Your task to perform on an android device: Open calendar and show me the first week of next month Image 0: 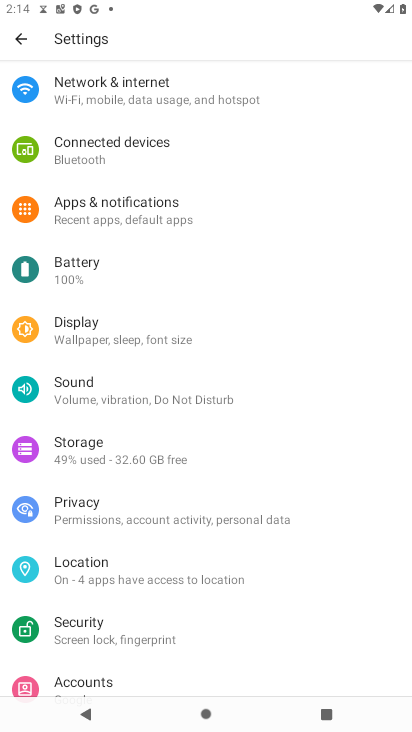
Step 0: press home button
Your task to perform on an android device: Open calendar and show me the first week of next month Image 1: 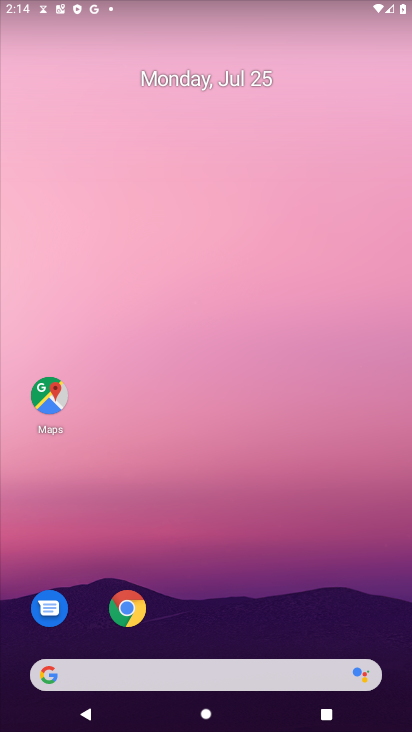
Step 1: drag from (192, 679) to (261, 39)
Your task to perform on an android device: Open calendar and show me the first week of next month Image 2: 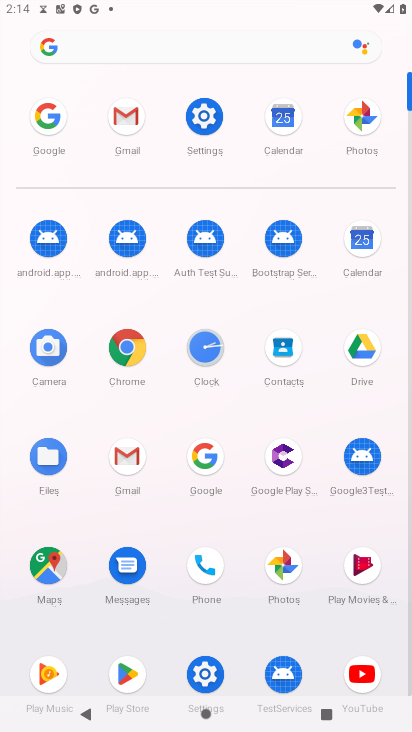
Step 2: click (359, 239)
Your task to perform on an android device: Open calendar and show me the first week of next month Image 3: 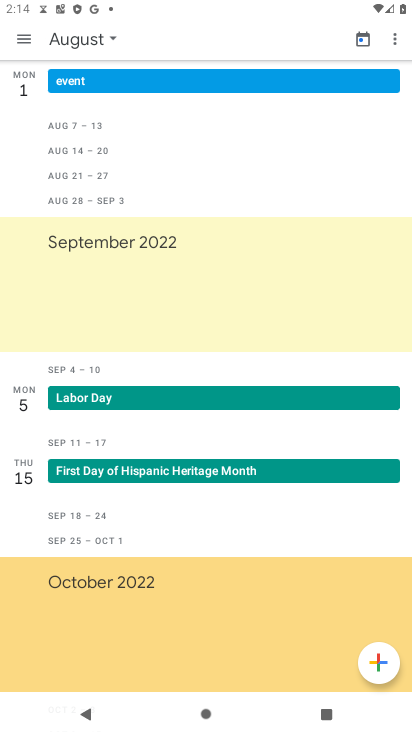
Step 3: click (366, 42)
Your task to perform on an android device: Open calendar and show me the first week of next month Image 4: 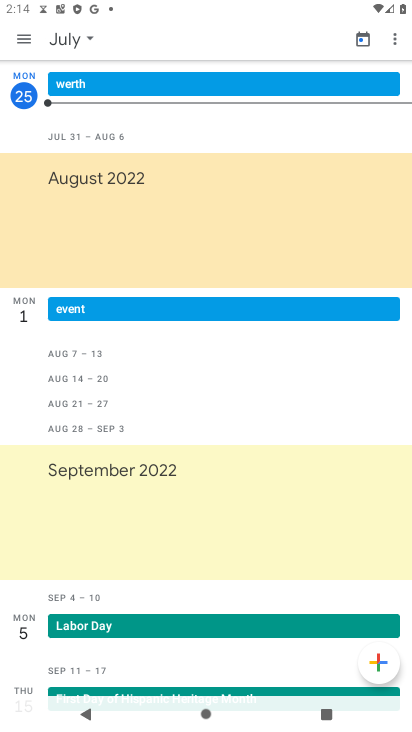
Step 4: click (90, 39)
Your task to perform on an android device: Open calendar and show me the first week of next month Image 5: 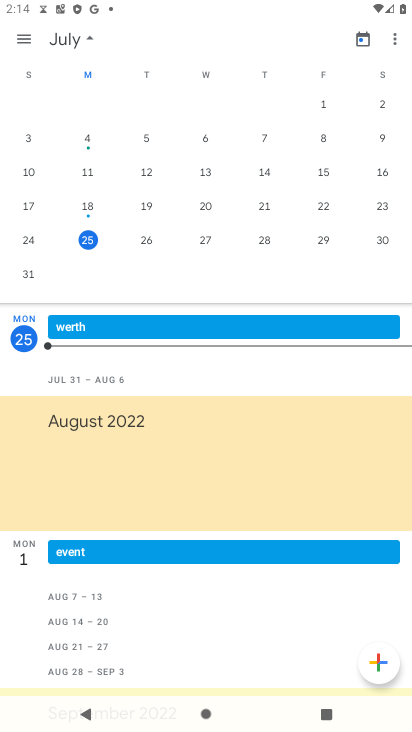
Step 5: drag from (358, 215) to (7, 220)
Your task to perform on an android device: Open calendar and show me the first week of next month Image 6: 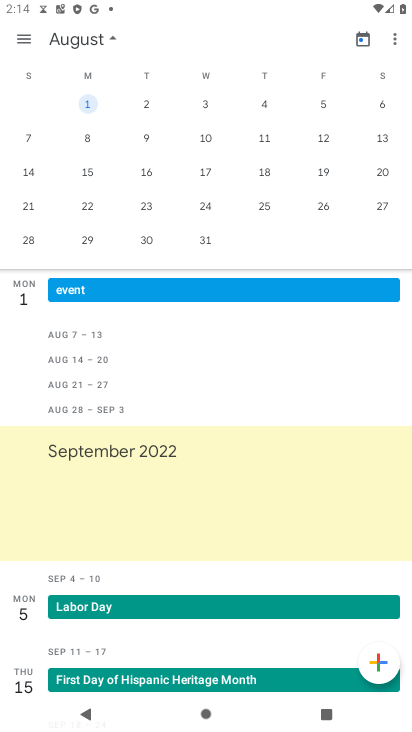
Step 6: click (86, 104)
Your task to perform on an android device: Open calendar and show me the first week of next month Image 7: 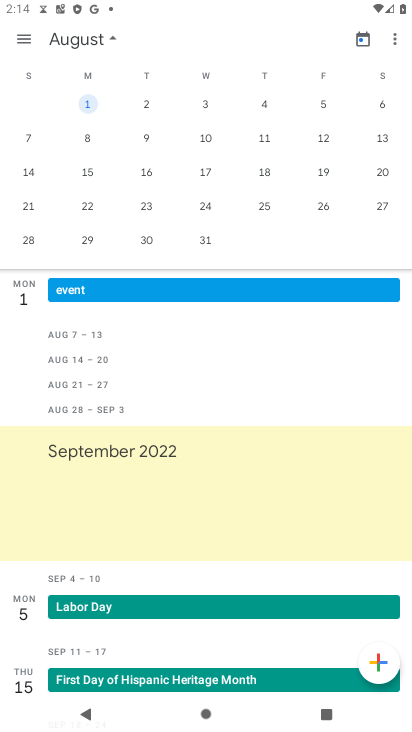
Step 7: click (20, 37)
Your task to perform on an android device: Open calendar and show me the first week of next month Image 8: 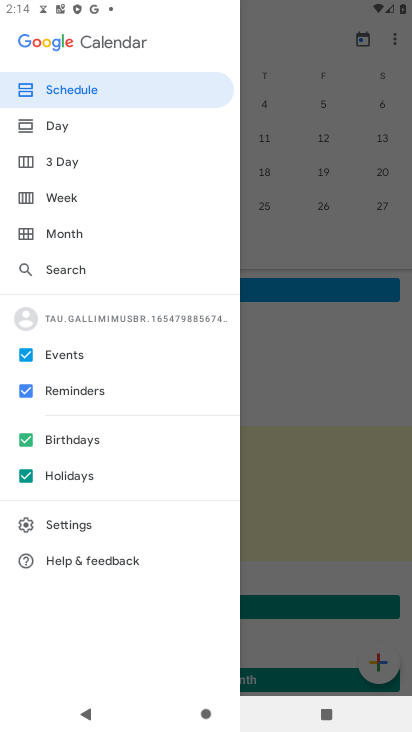
Step 8: click (61, 199)
Your task to perform on an android device: Open calendar and show me the first week of next month Image 9: 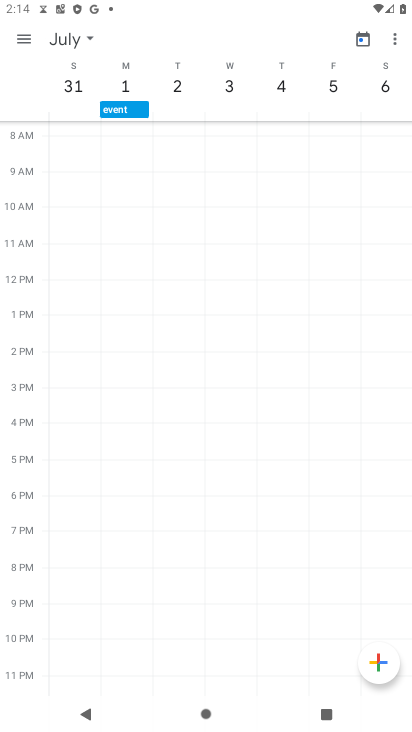
Step 9: task complete